Your task to perform on an android device: Go to CNN.com Image 0: 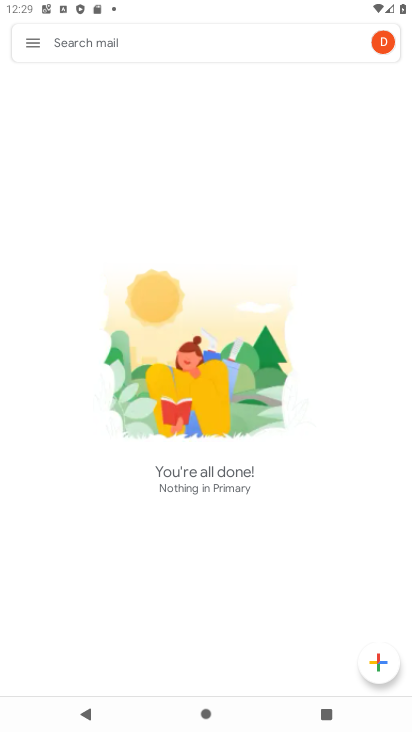
Step 0: task complete